Your task to perform on an android device: set an alarm Image 0: 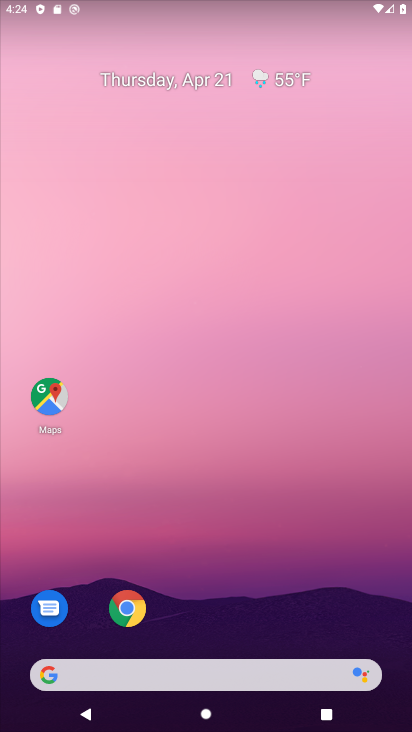
Step 0: drag from (217, 585) to (410, 115)
Your task to perform on an android device: set an alarm Image 1: 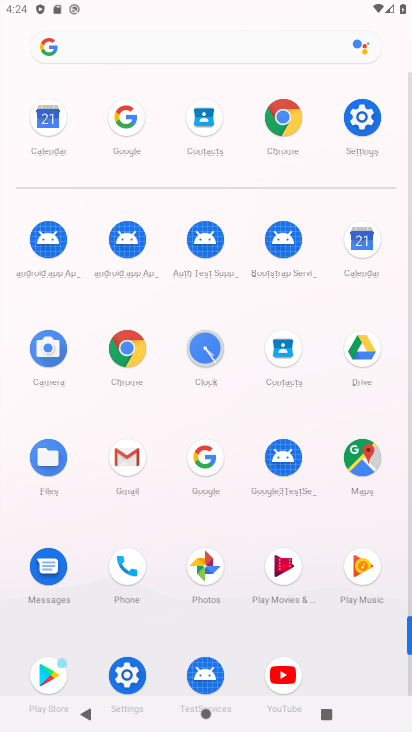
Step 1: click (210, 356)
Your task to perform on an android device: set an alarm Image 2: 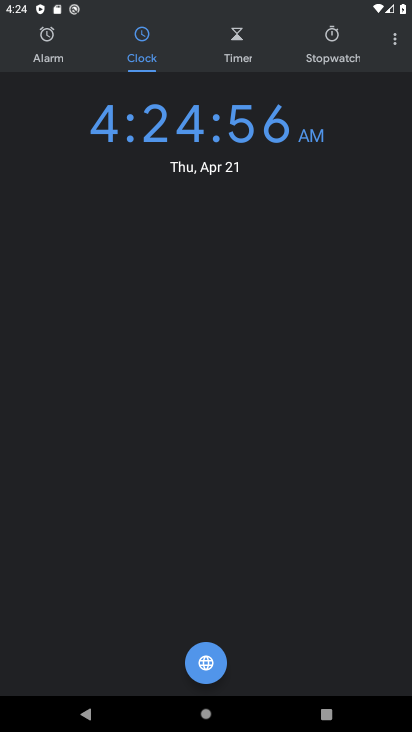
Step 2: click (55, 48)
Your task to perform on an android device: set an alarm Image 3: 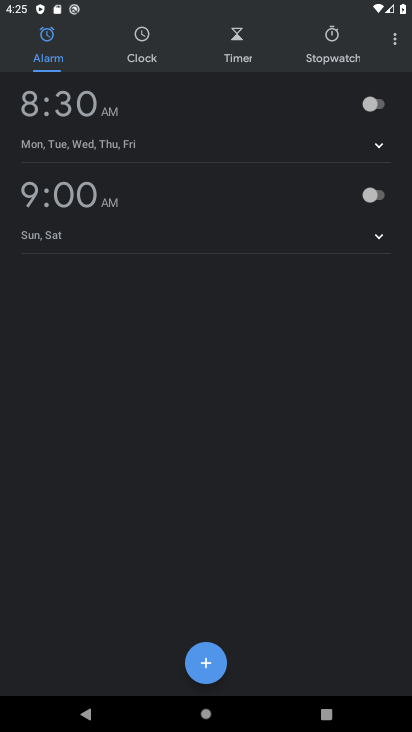
Step 3: click (77, 98)
Your task to perform on an android device: set an alarm Image 4: 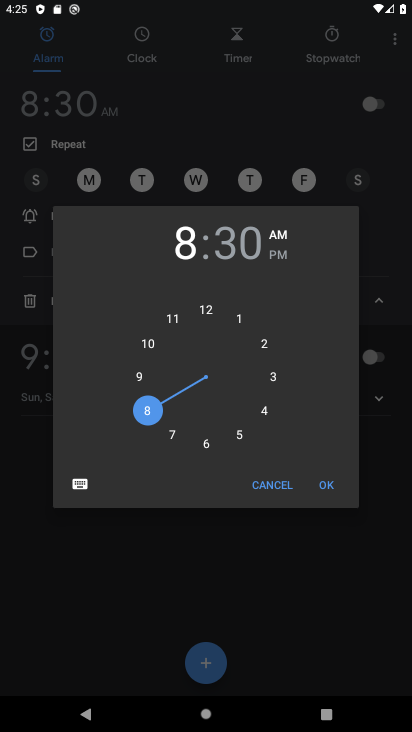
Step 4: click (206, 308)
Your task to perform on an android device: set an alarm Image 5: 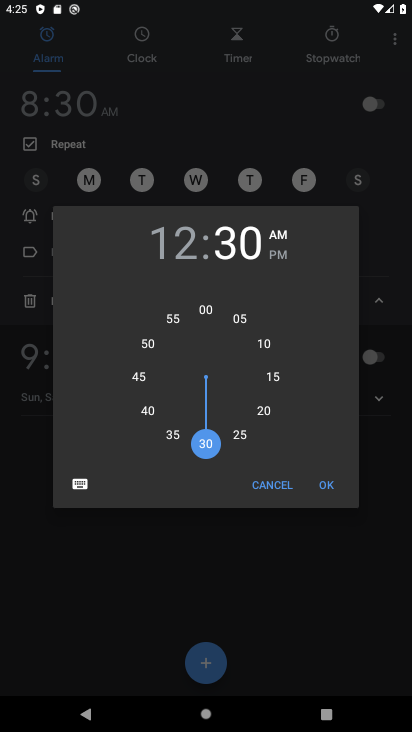
Step 5: click (285, 260)
Your task to perform on an android device: set an alarm Image 6: 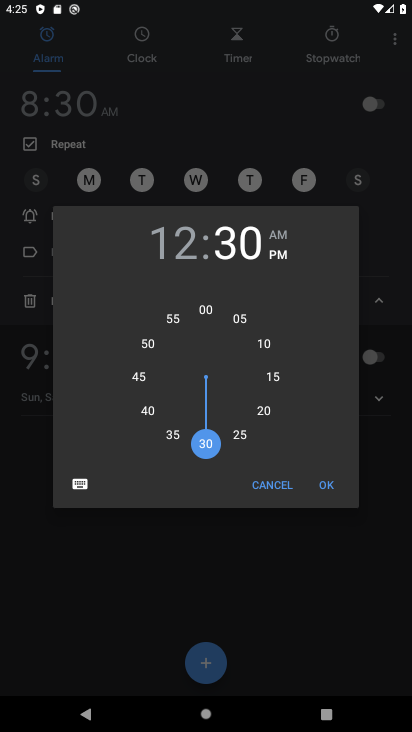
Step 6: click (325, 488)
Your task to perform on an android device: set an alarm Image 7: 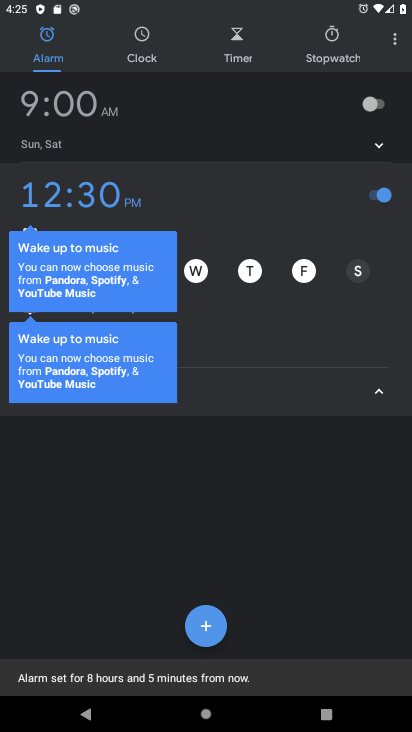
Step 7: click (250, 500)
Your task to perform on an android device: set an alarm Image 8: 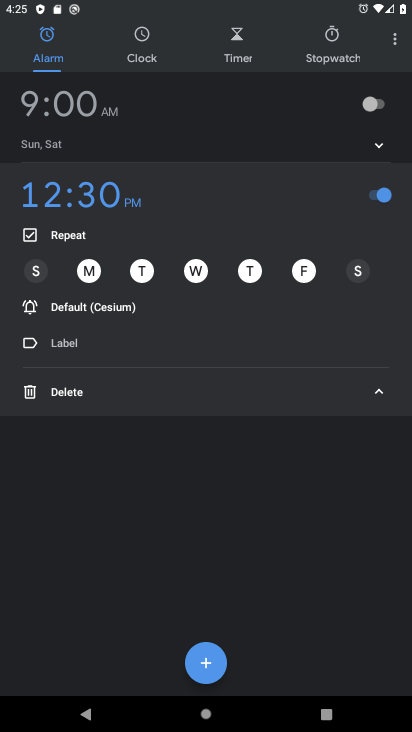
Step 8: task complete